Your task to perform on an android device: check battery use Image 0: 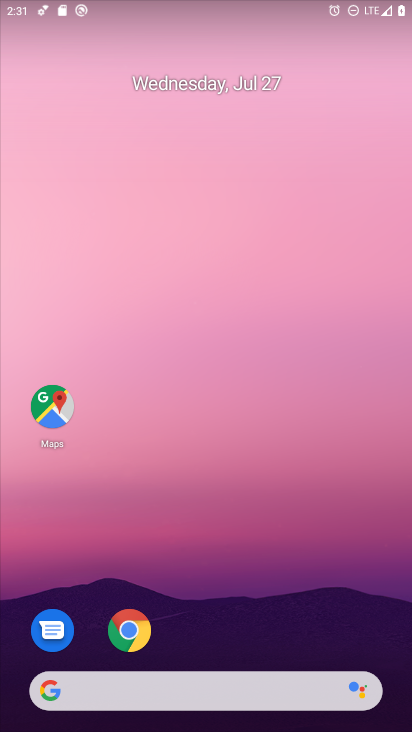
Step 0: drag from (357, 633) to (373, 171)
Your task to perform on an android device: check battery use Image 1: 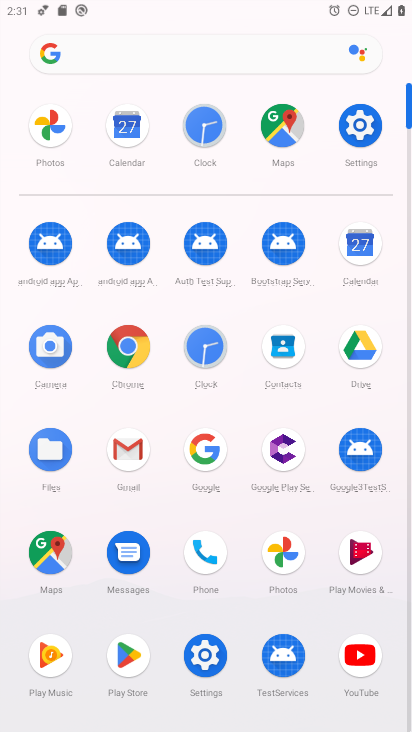
Step 1: click (204, 654)
Your task to perform on an android device: check battery use Image 2: 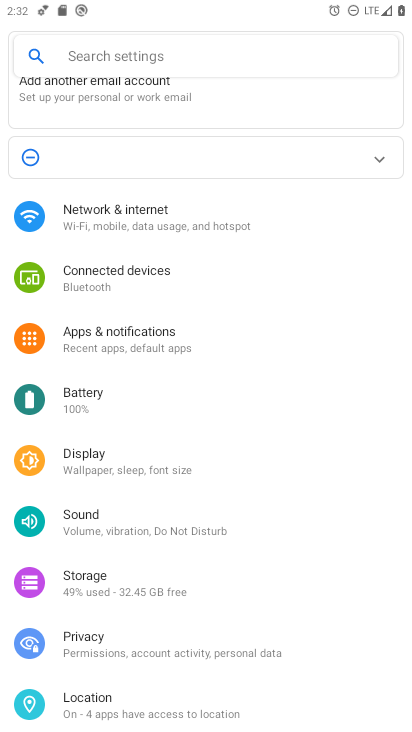
Step 2: click (80, 392)
Your task to perform on an android device: check battery use Image 3: 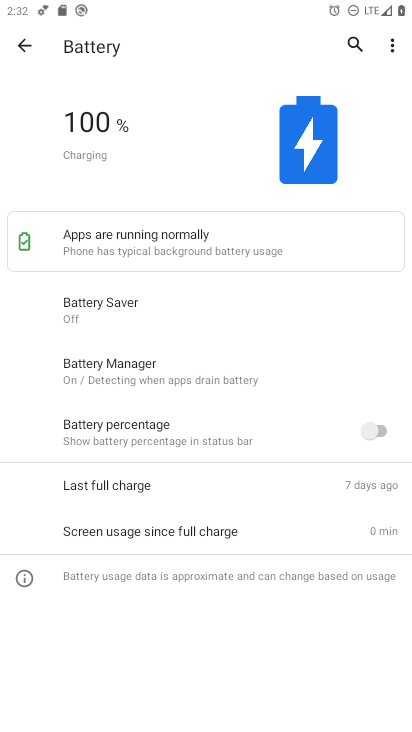
Step 3: click (392, 47)
Your task to perform on an android device: check battery use Image 4: 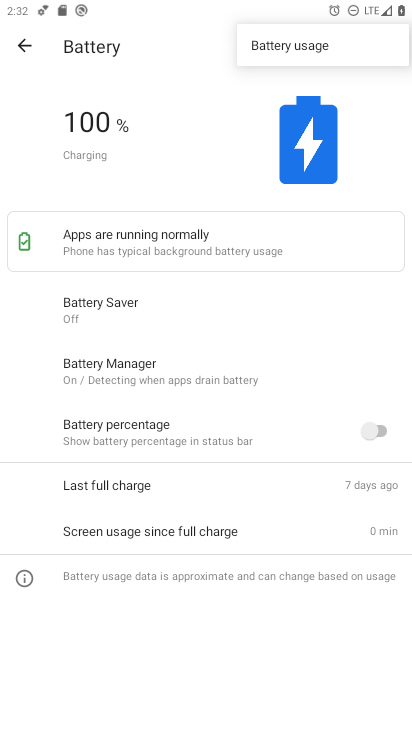
Step 4: click (284, 49)
Your task to perform on an android device: check battery use Image 5: 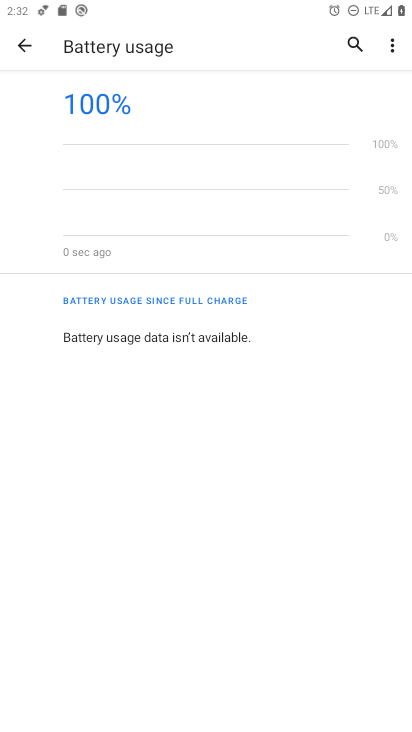
Step 5: task complete